Your task to perform on an android device: star an email in the gmail app Image 0: 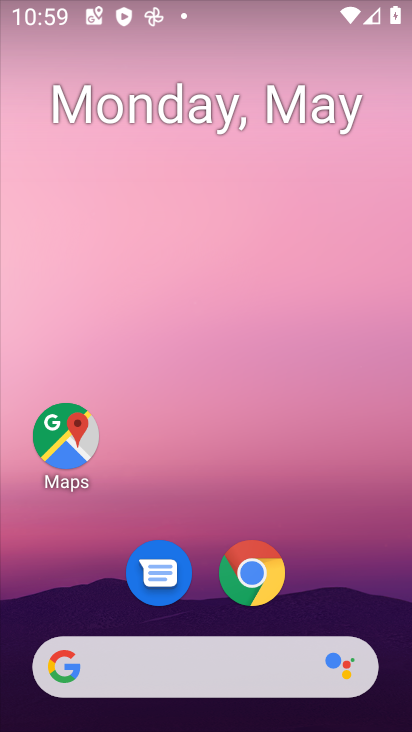
Step 0: drag from (338, 585) to (262, 122)
Your task to perform on an android device: star an email in the gmail app Image 1: 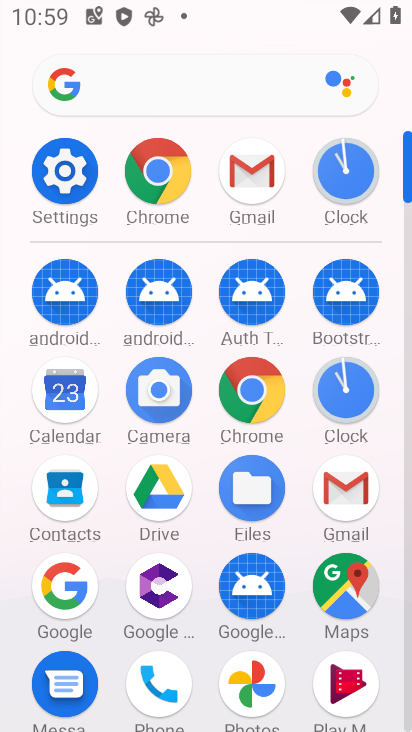
Step 1: click (260, 180)
Your task to perform on an android device: star an email in the gmail app Image 2: 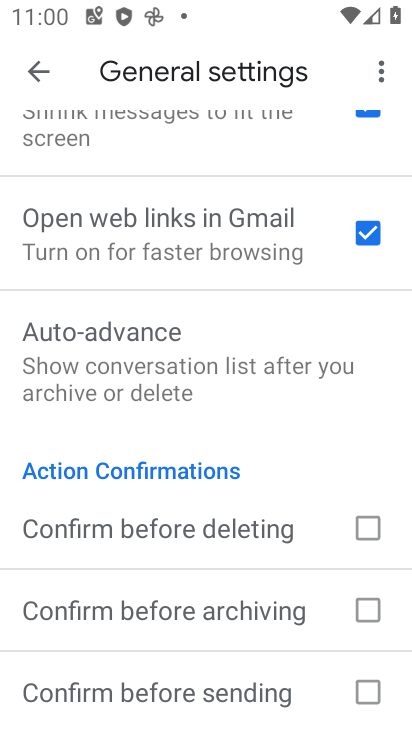
Step 2: click (37, 86)
Your task to perform on an android device: star an email in the gmail app Image 3: 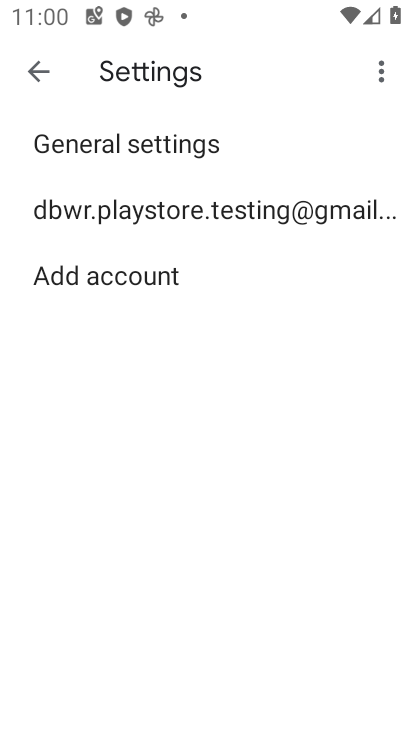
Step 3: click (40, 83)
Your task to perform on an android device: star an email in the gmail app Image 4: 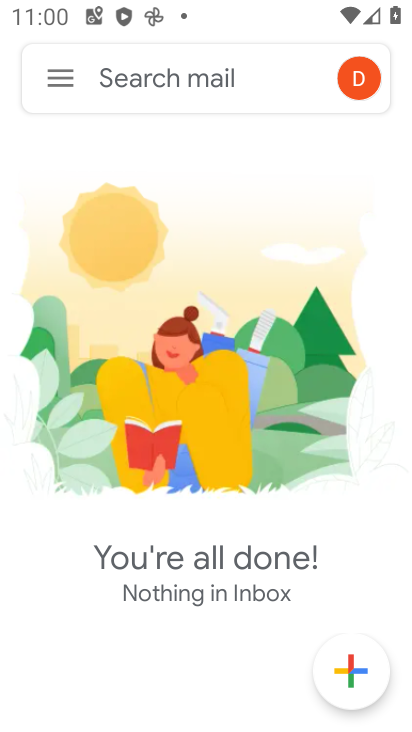
Step 4: click (40, 83)
Your task to perform on an android device: star an email in the gmail app Image 5: 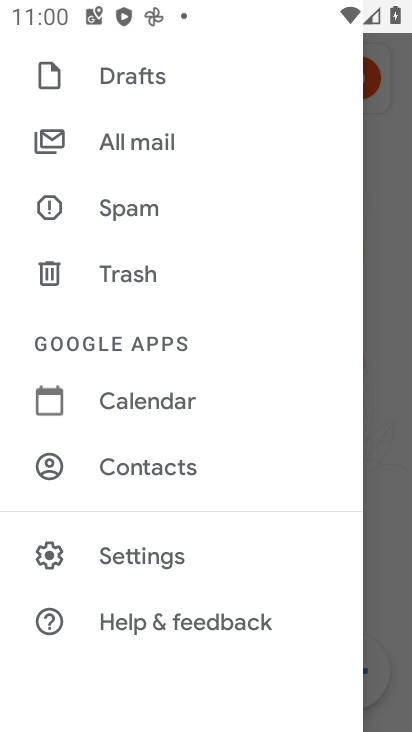
Step 5: drag from (125, 161) to (273, 507)
Your task to perform on an android device: star an email in the gmail app Image 6: 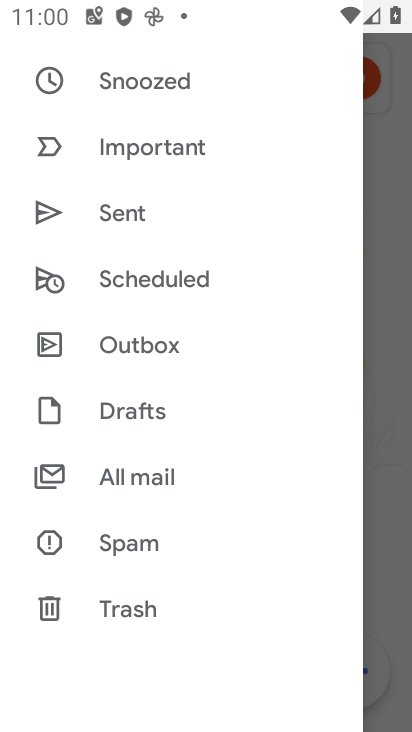
Step 6: drag from (216, 210) to (284, 623)
Your task to perform on an android device: star an email in the gmail app Image 7: 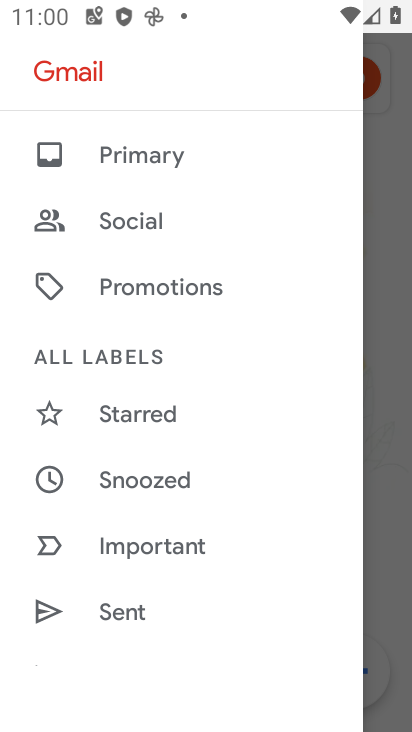
Step 7: click (197, 140)
Your task to perform on an android device: star an email in the gmail app Image 8: 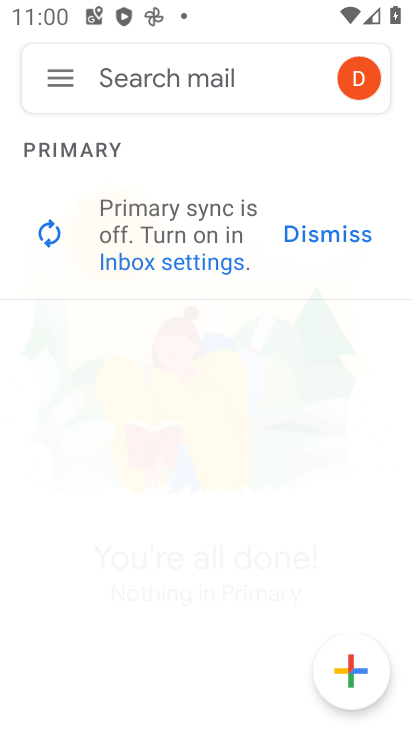
Step 8: task complete